Your task to perform on an android device: Check the news Image 0: 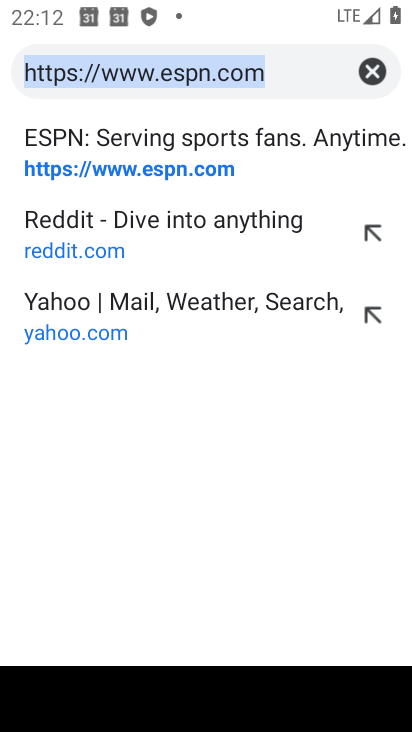
Step 0: type "news"
Your task to perform on an android device: Check the news Image 1: 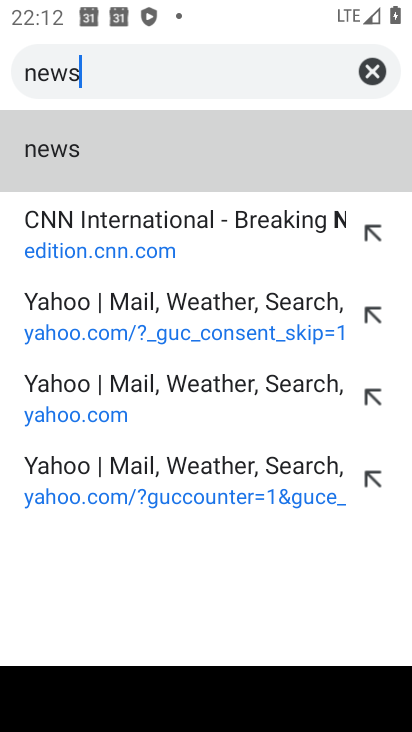
Step 1: click (71, 153)
Your task to perform on an android device: Check the news Image 2: 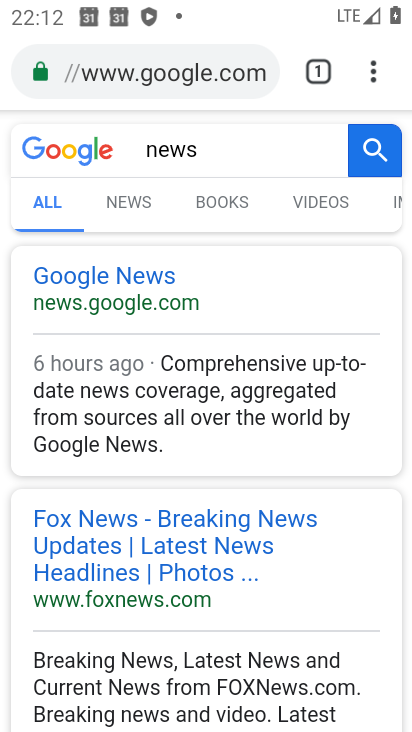
Step 2: click (122, 213)
Your task to perform on an android device: Check the news Image 3: 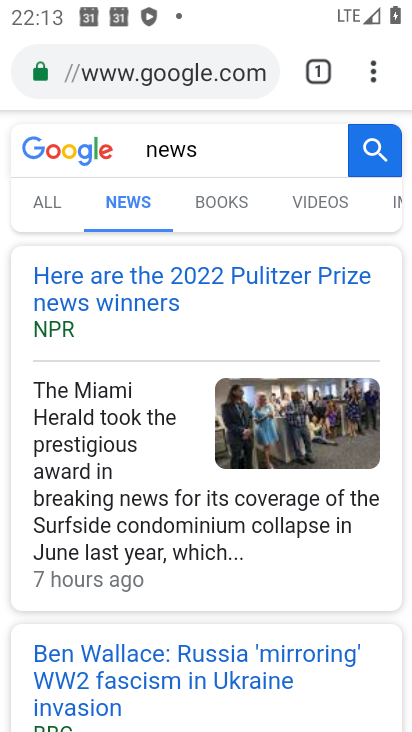
Step 3: task complete